Your task to perform on an android device: turn on the 24-hour format for clock Image 0: 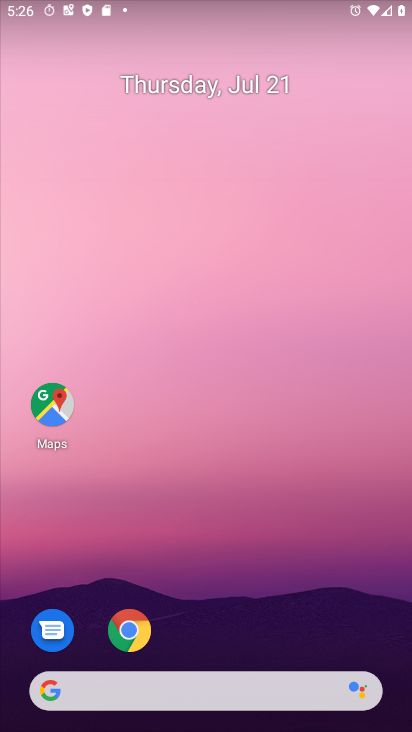
Step 0: drag from (171, 688) to (204, 143)
Your task to perform on an android device: turn on the 24-hour format for clock Image 1: 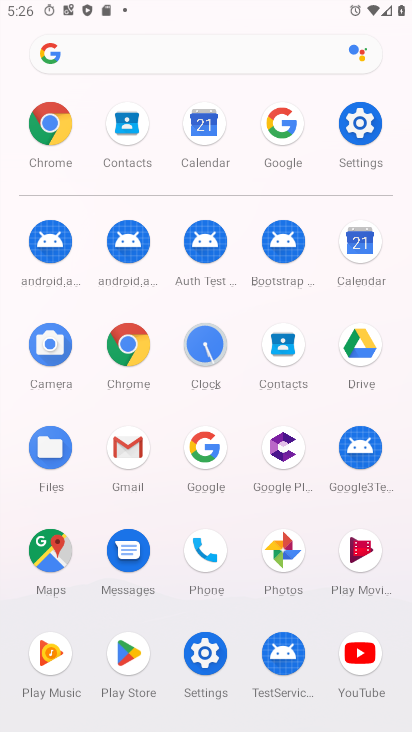
Step 1: click (205, 344)
Your task to perform on an android device: turn on the 24-hour format for clock Image 2: 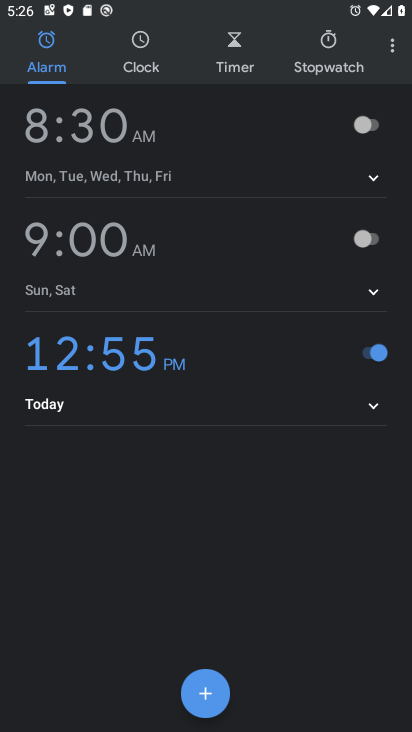
Step 2: click (394, 47)
Your task to perform on an android device: turn on the 24-hour format for clock Image 3: 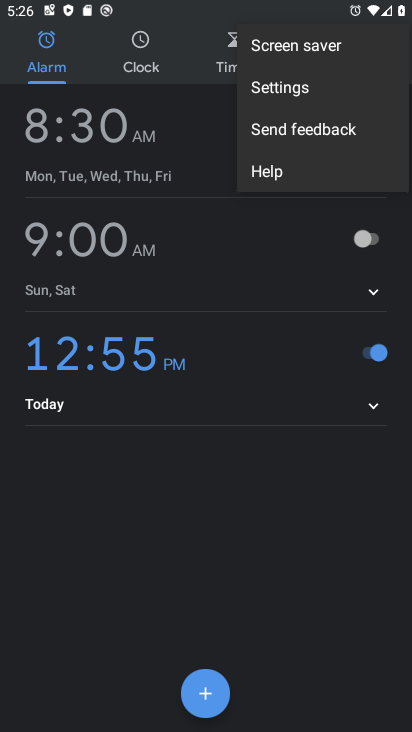
Step 3: click (294, 85)
Your task to perform on an android device: turn on the 24-hour format for clock Image 4: 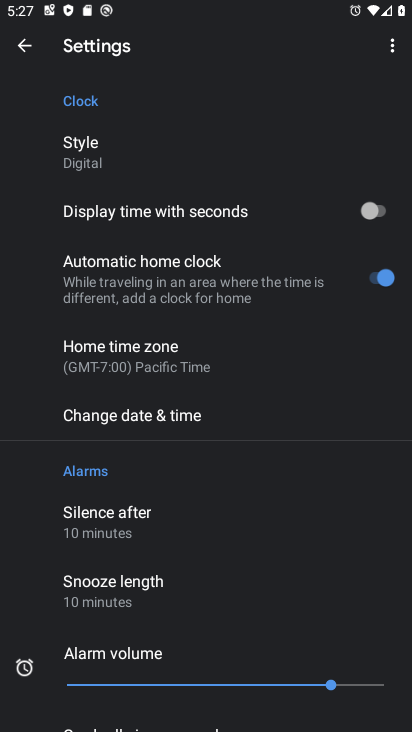
Step 4: click (123, 418)
Your task to perform on an android device: turn on the 24-hour format for clock Image 5: 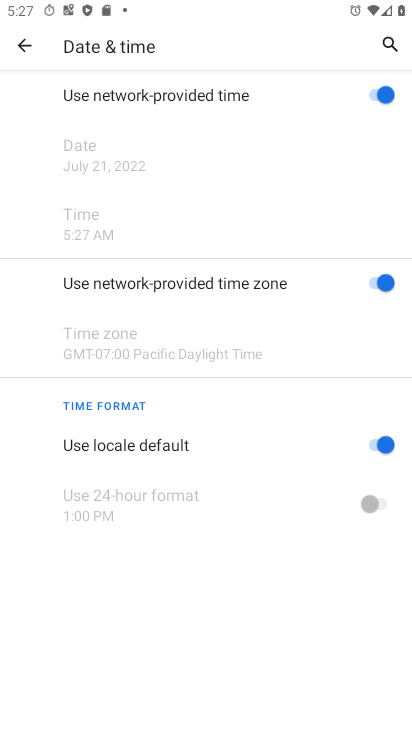
Step 5: click (371, 447)
Your task to perform on an android device: turn on the 24-hour format for clock Image 6: 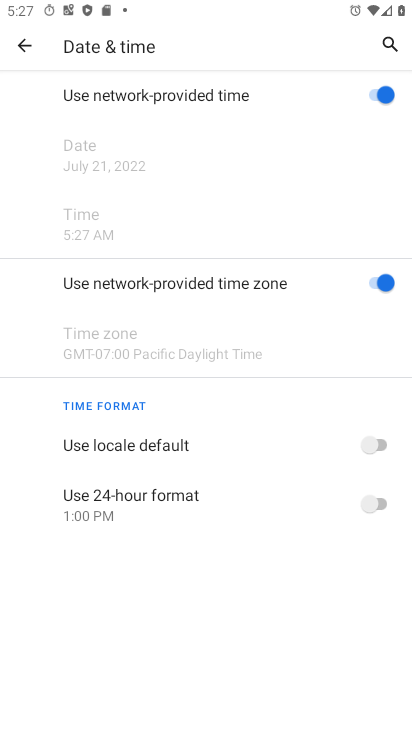
Step 6: click (374, 507)
Your task to perform on an android device: turn on the 24-hour format for clock Image 7: 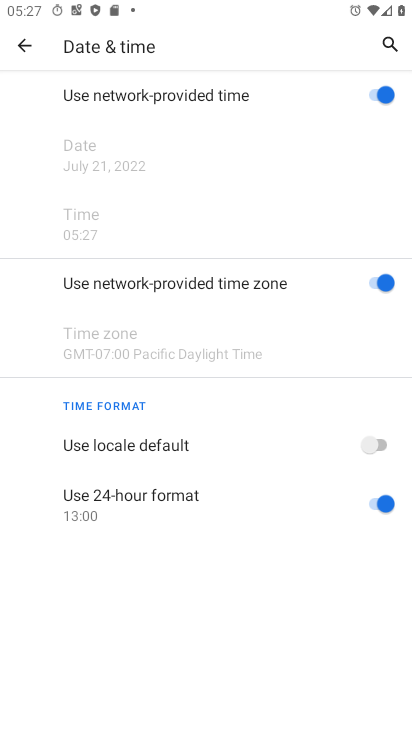
Step 7: task complete